Your task to perform on an android device: Go to battery settings Image 0: 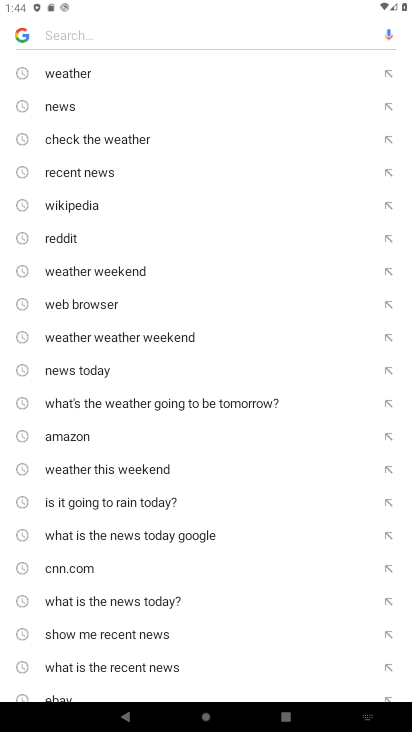
Step 0: press home button
Your task to perform on an android device: Go to battery settings Image 1: 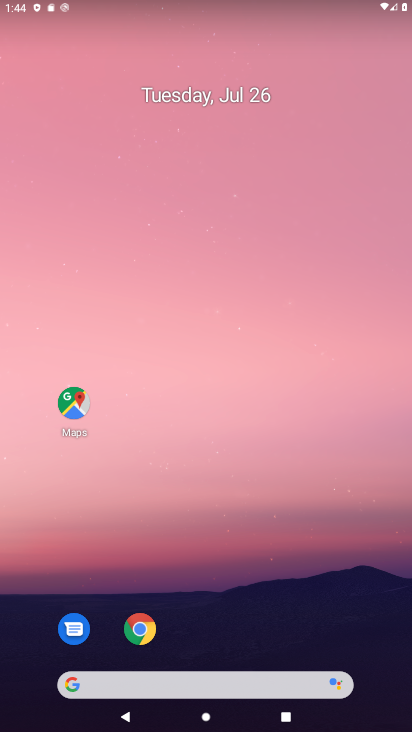
Step 1: drag from (362, 318) to (343, 125)
Your task to perform on an android device: Go to battery settings Image 2: 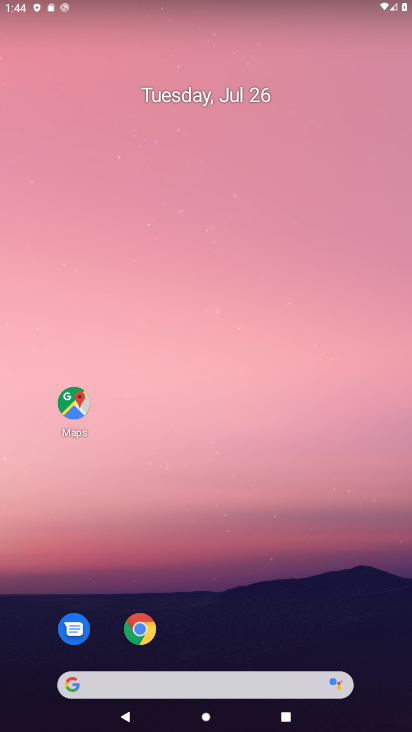
Step 2: drag from (379, 682) to (344, 176)
Your task to perform on an android device: Go to battery settings Image 3: 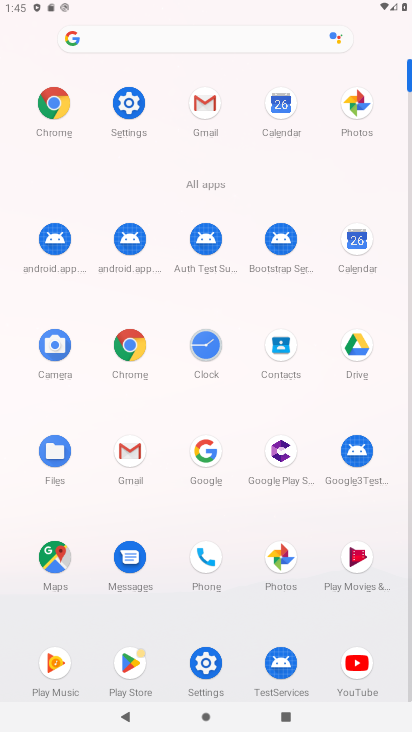
Step 3: click (206, 662)
Your task to perform on an android device: Go to battery settings Image 4: 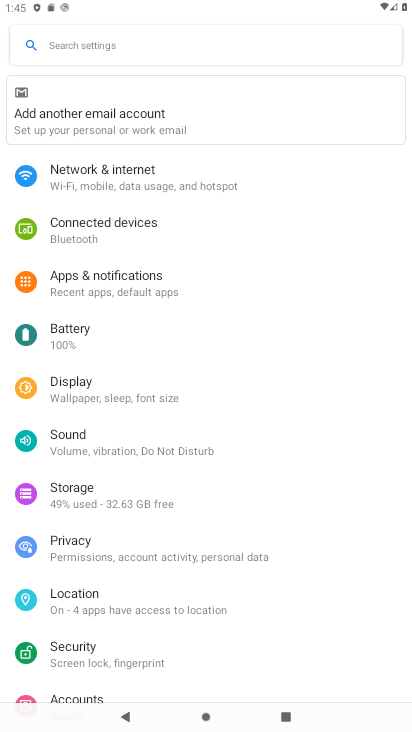
Step 4: click (62, 329)
Your task to perform on an android device: Go to battery settings Image 5: 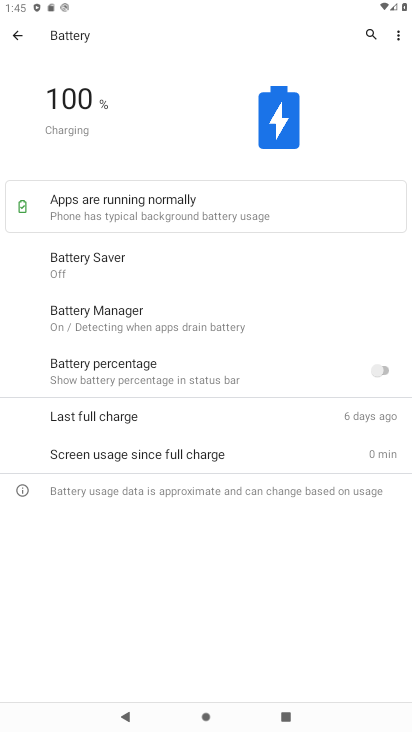
Step 5: task complete